Your task to perform on an android device: turn off location history Image 0: 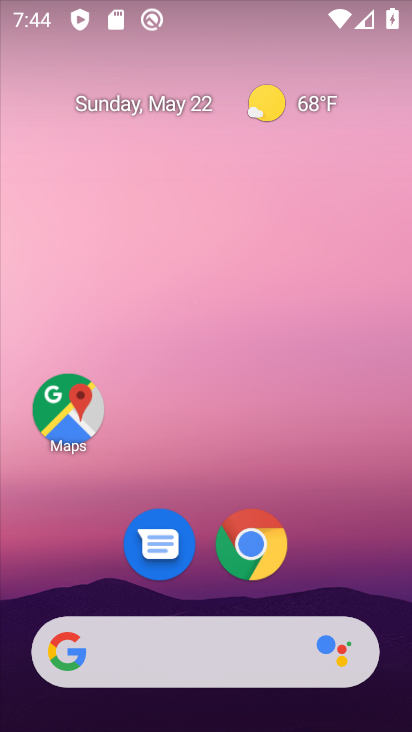
Step 0: click (247, 544)
Your task to perform on an android device: turn off location history Image 1: 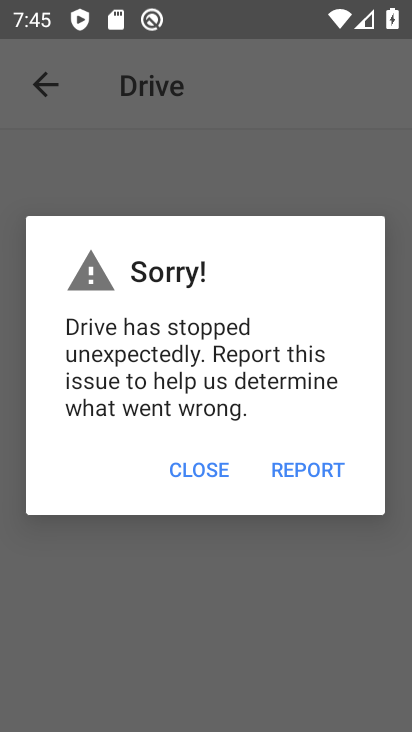
Step 1: press home button
Your task to perform on an android device: turn off location history Image 2: 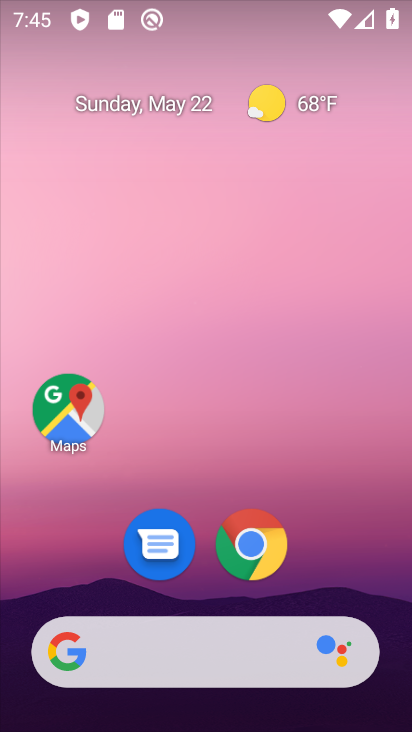
Step 2: click (261, 555)
Your task to perform on an android device: turn off location history Image 3: 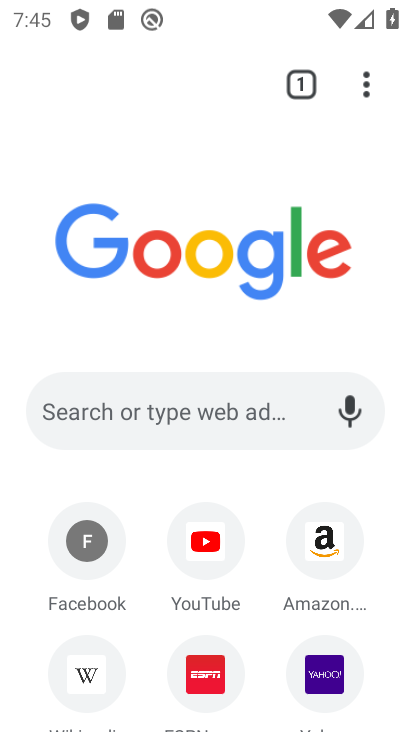
Step 3: click (363, 83)
Your task to perform on an android device: turn off location history Image 4: 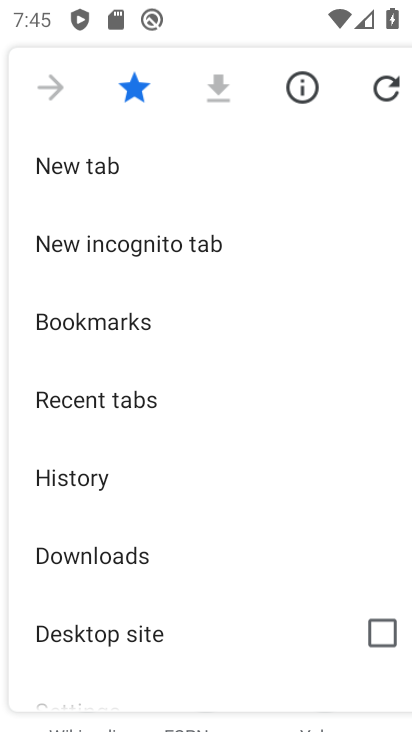
Step 4: drag from (256, 594) to (284, 343)
Your task to perform on an android device: turn off location history Image 5: 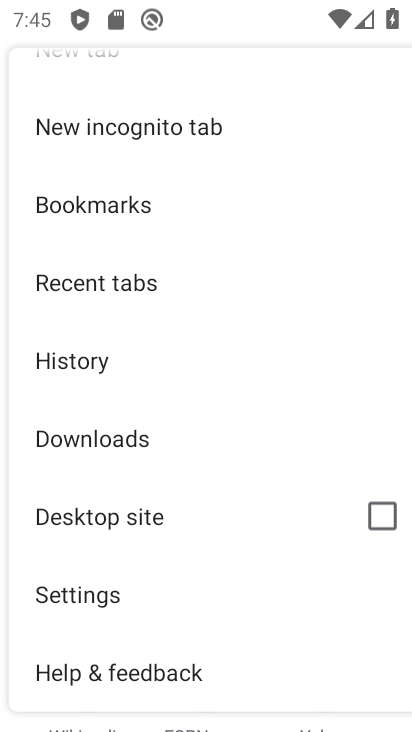
Step 5: click (108, 588)
Your task to perform on an android device: turn off location history Image 6: 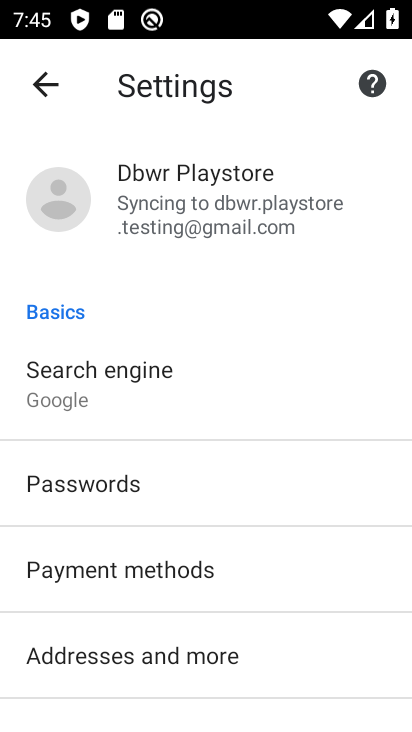
Step 6: drag from (311, 715) to (323, 413)
Your task to perform on an android device: turn off location history Image 7: 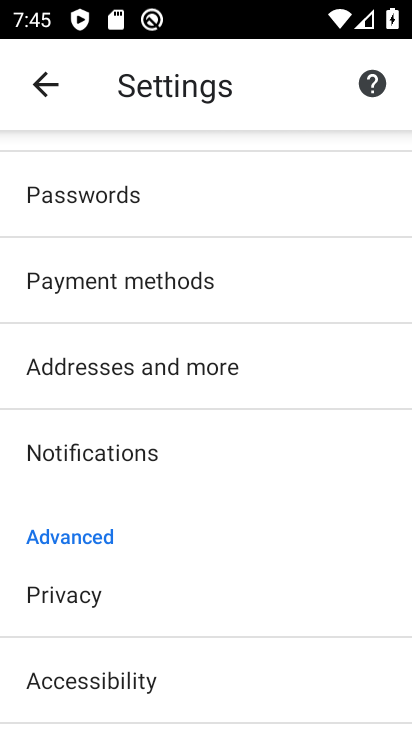
Step 7: drag from (299, 640) to (338, 244)
Your task to perform on an android device: turn off location history Image 8: 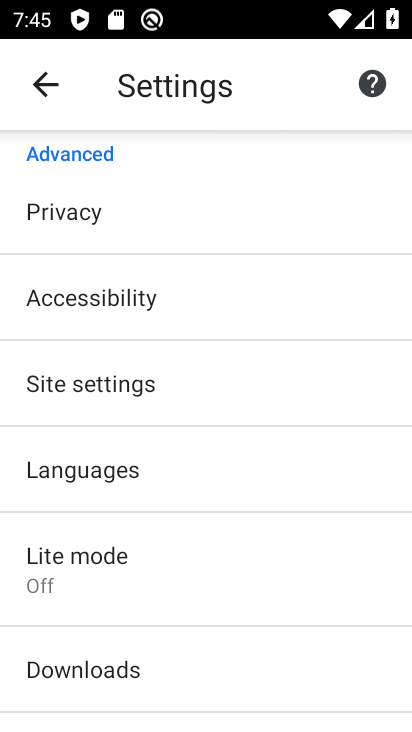
Step 8: press back button
Your task to perform on an android device: turn off location history Image 9: 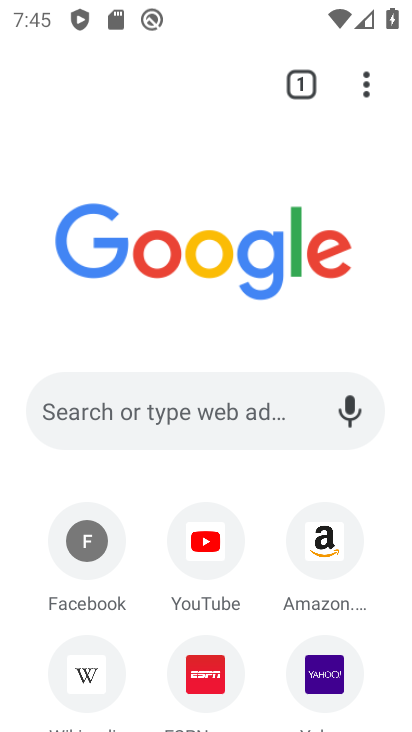
Step 9: press back button
Your task to perform on an android device: turn off location history Image 10: 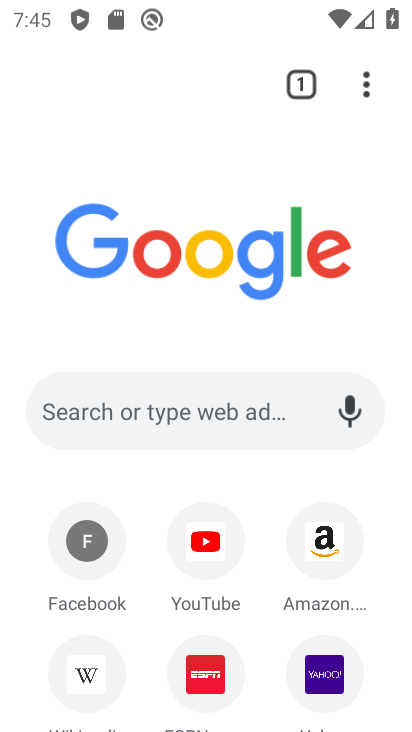
Step 10: press back button
Your task to perform on an android device: turn off location history Image 11: 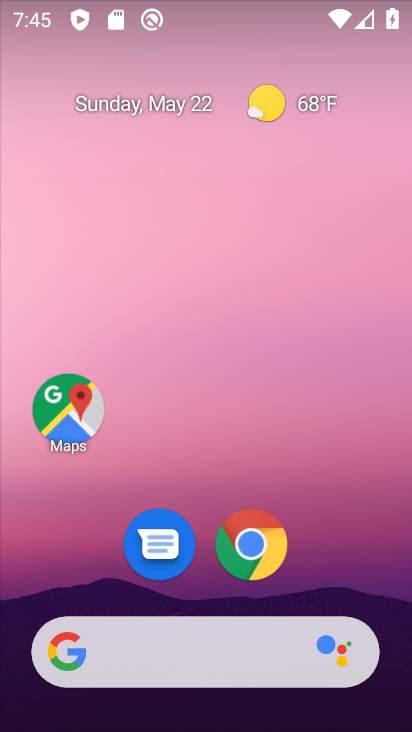
Step 11: drag from (387, 701) to (345, 204)
Your task to perform on an android device: turn off location history Image 12: 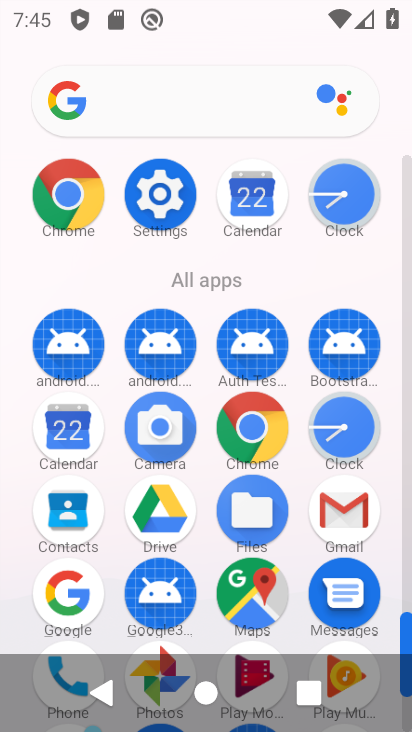
Step 12: click (162, 159)
Your task to perform on an android device: turn off location history Image 13: 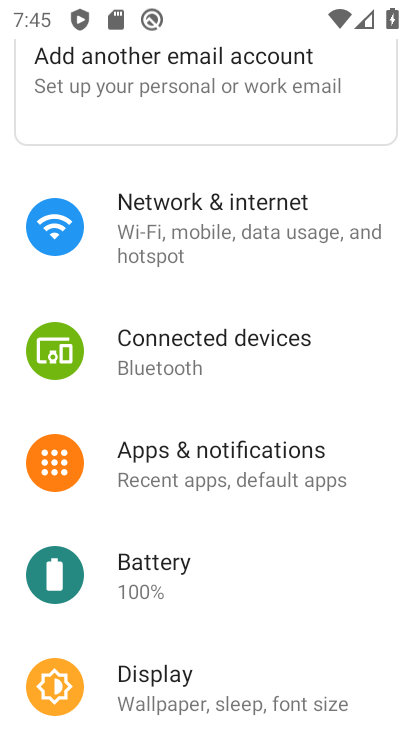
Step 13: drag from (398, 716) to (404, 246)
Your task to perform on an android device: turn off location history Image 14: 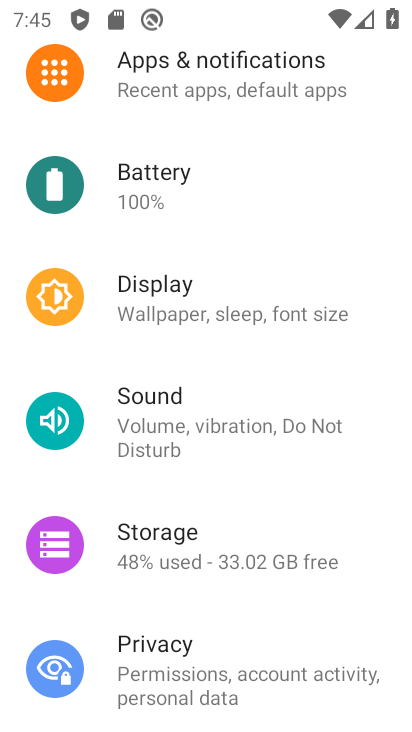
Step 14: click (366, 609)
Your task to perform on an android device: turn off location history Image 15: 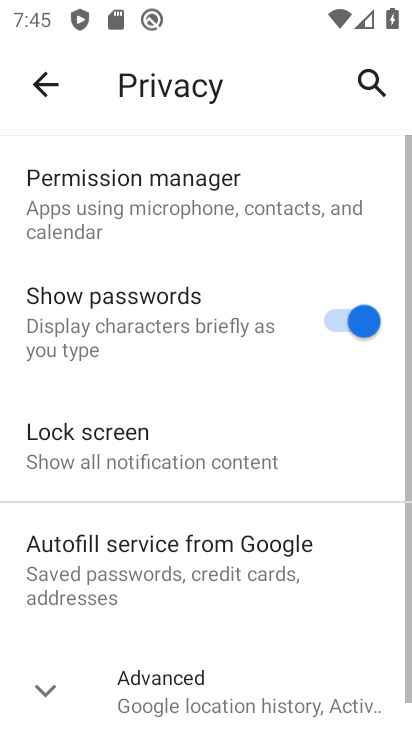
Step 15: click (365, 573)
Your task to perform on an android device: turn off location history Image 16: 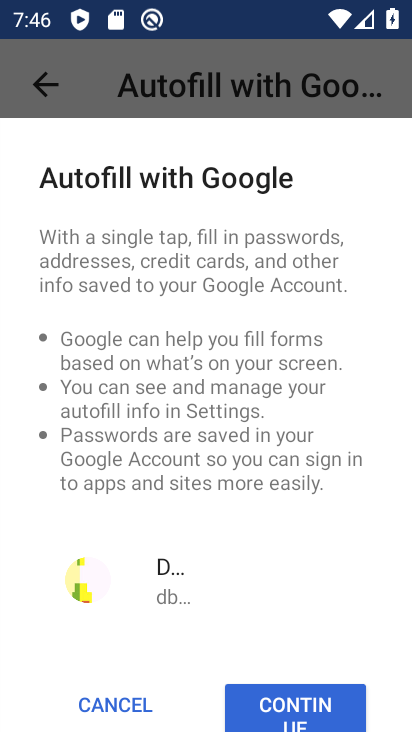
Step 16: click (136, 705)
Your task to perform on an android device: turn off location history Image 17: 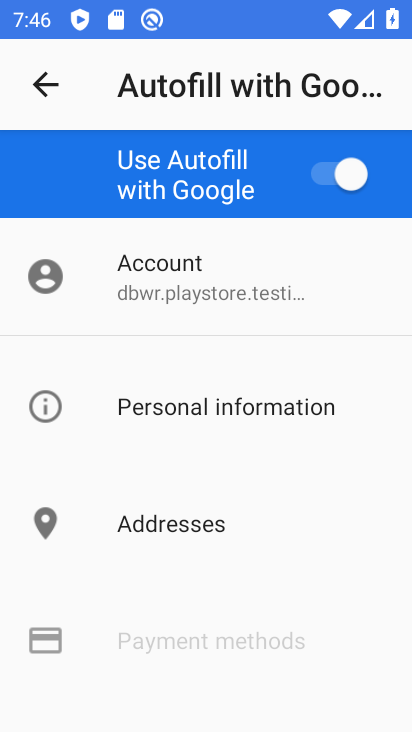
Step 17: press back button
Your task to perform on an android device: turn off location history Image 18: 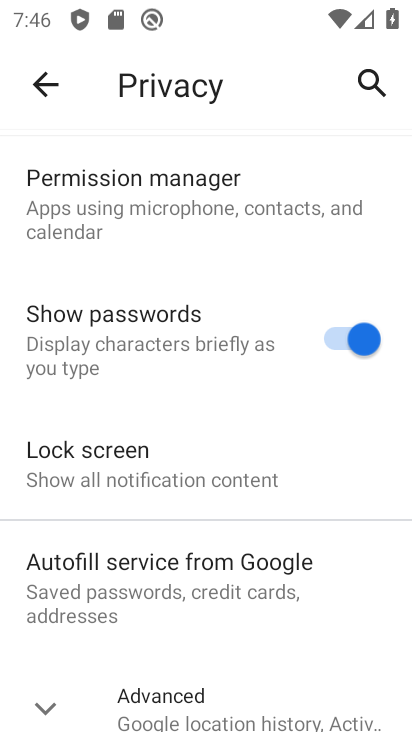
Step 18: press back button
Your task to perform on an android device: turn off location history Image 19: 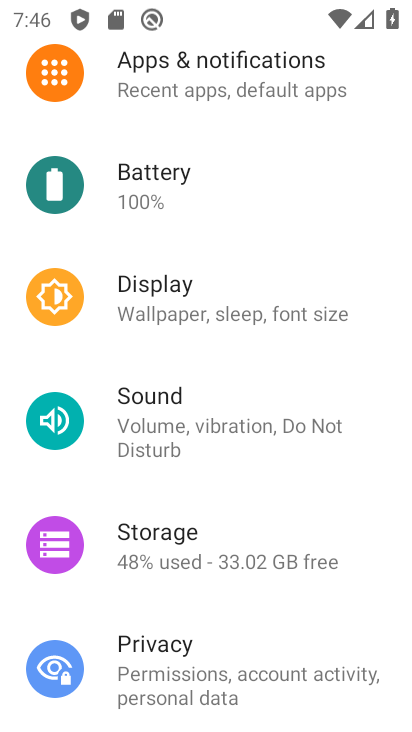
Step 19: drag from (394, 707) to (374, 203)
Your task to perform on an android device: turn off location history Image 20: 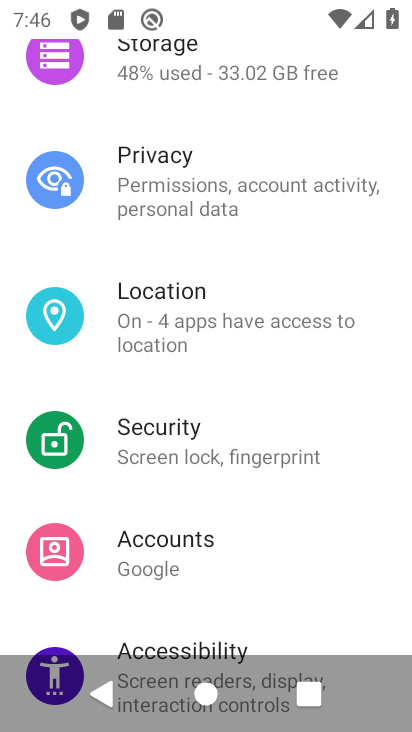
Step 20: click (195, 347)
Your task to perform on an android device: turn off location history Image 21: 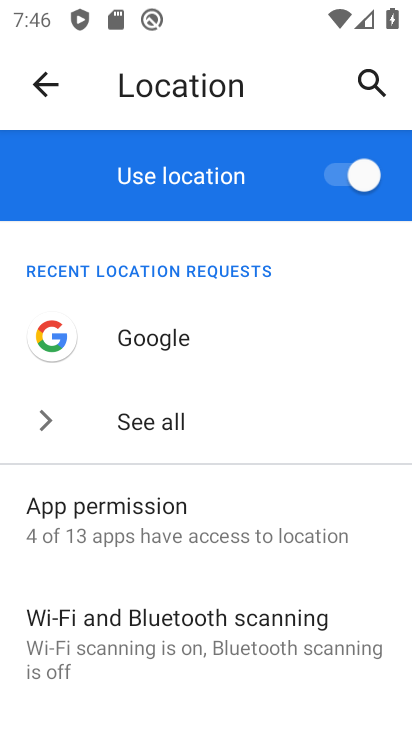
Step 21: drag from (318, 703) to (296, 323)
Your task to perform on an android device: turn off location history Image 22: 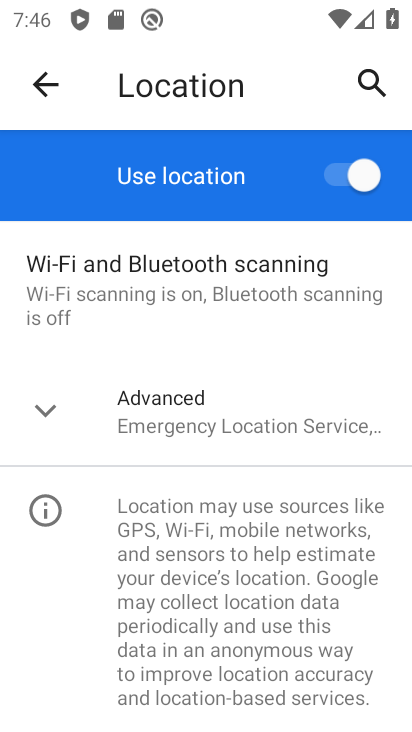
Step 22: click (39, 409)
Your task to perform on an android device: turn off location history Image 23: 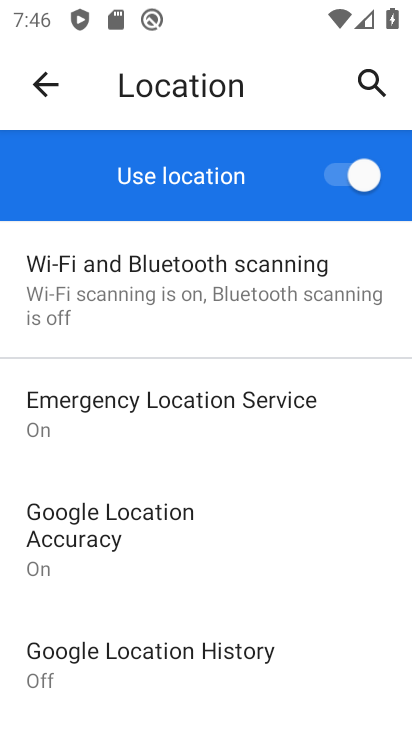
Step 23: click (162, 650)
Your task to perform on an android device: turn off location history Image 24: 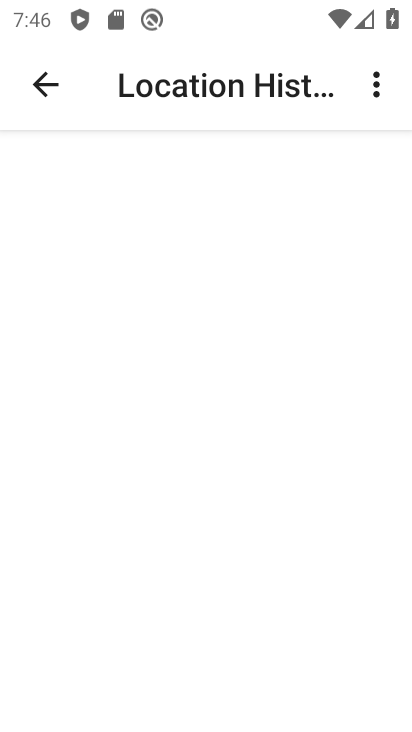
Step 24: task complete